Your task to perform on an android device: check google app version Image 0: 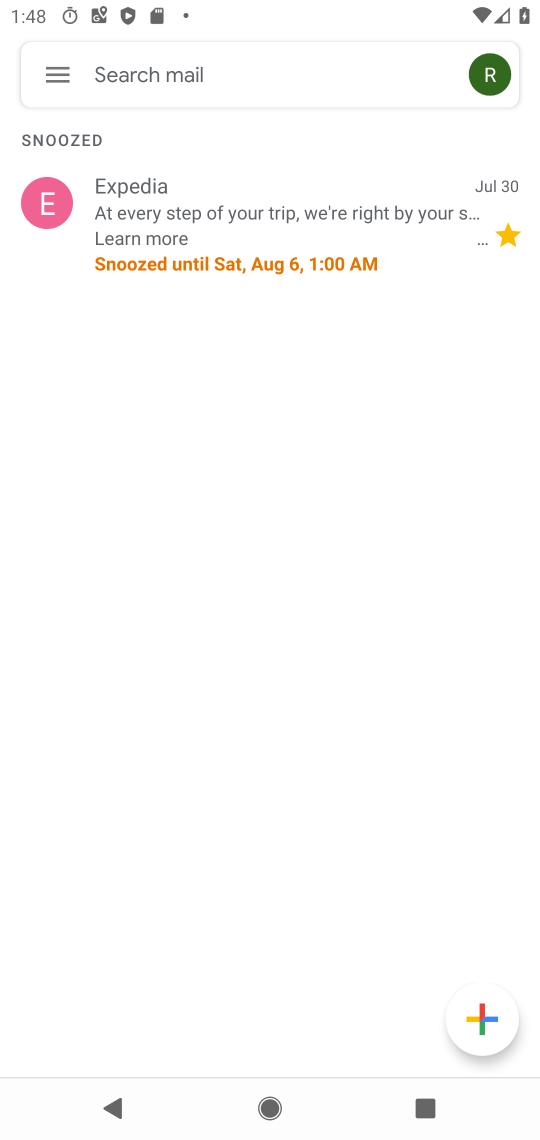
Step 0: press home button
Your task to perform on an android device: check google app version Image 1: 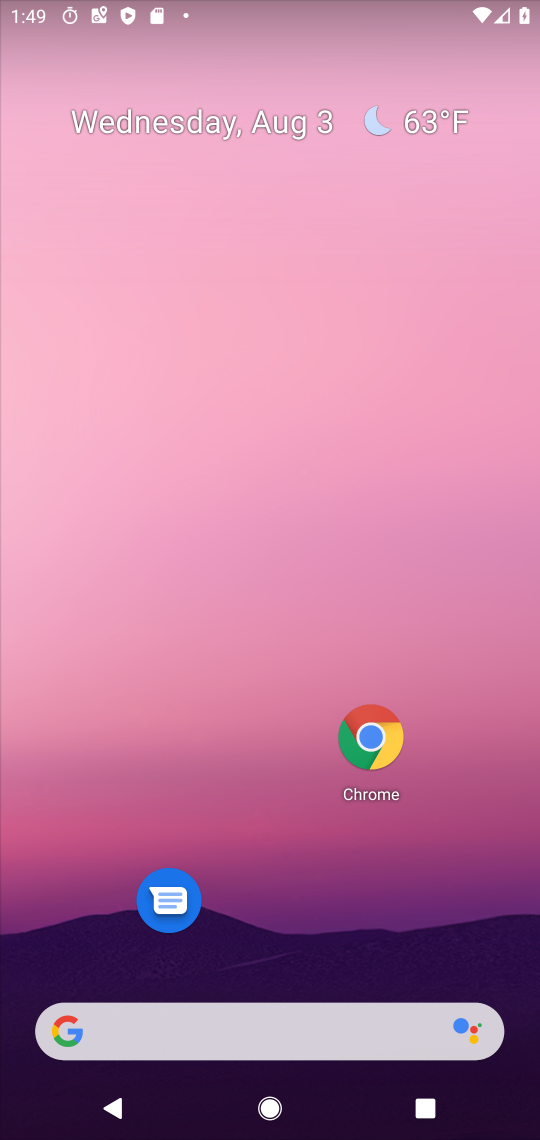
Step 1: drag from (351, 941) to (318, 91)
Your task to perform on an android device: check google app version Image 2: 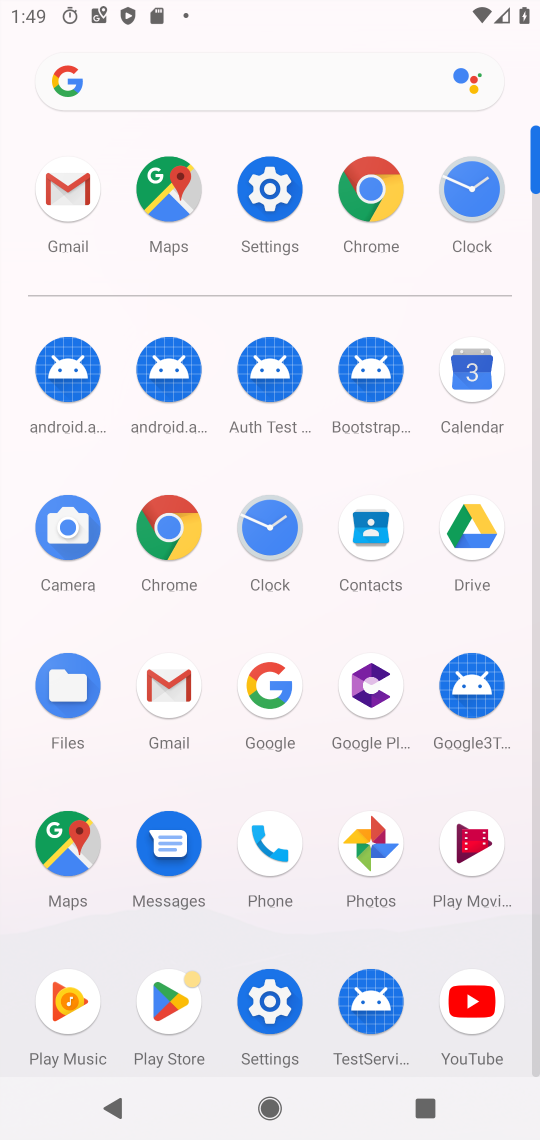
Step 2: click (269, 181)
Your task to perform on an android device: check google app version Image 3: 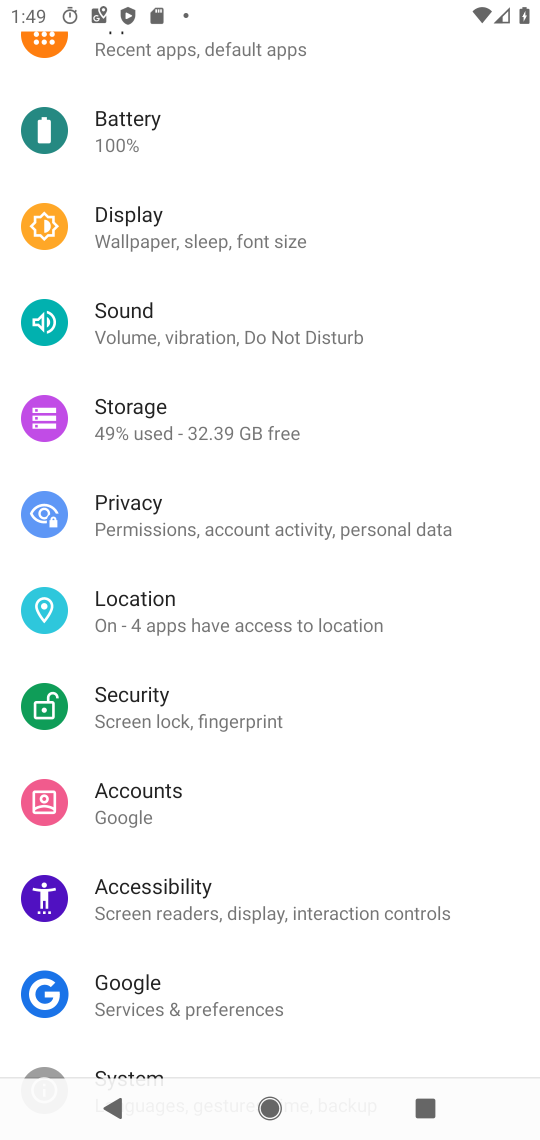
Step 3: drag from (439, 1035) to (472, 200)
Your task to perform on an android device: check google app version Image 4: 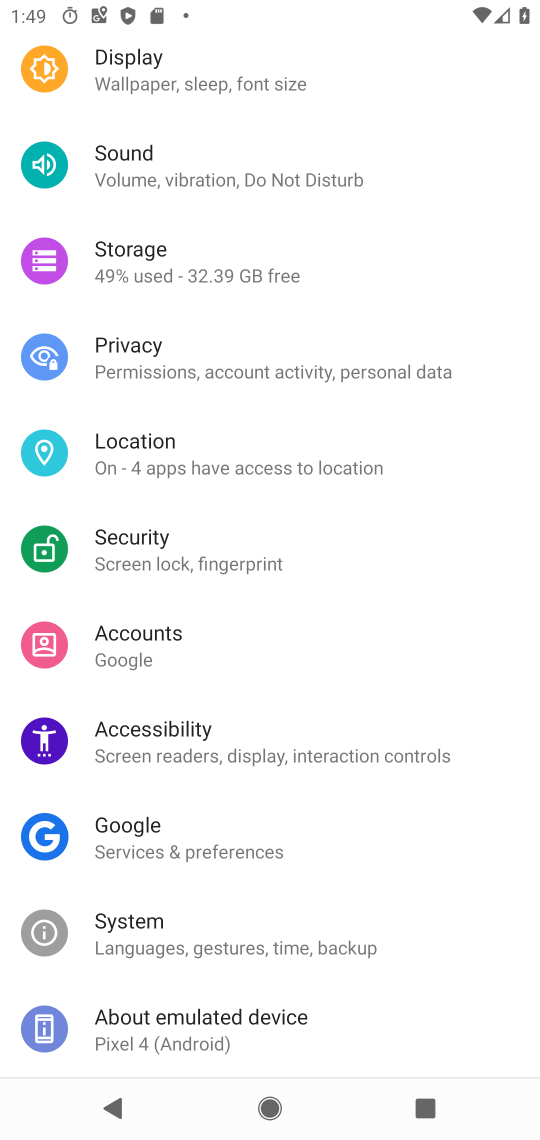
Step 4: click (193, 1018)
Your task to perform on an android device: check google app version Image 5: 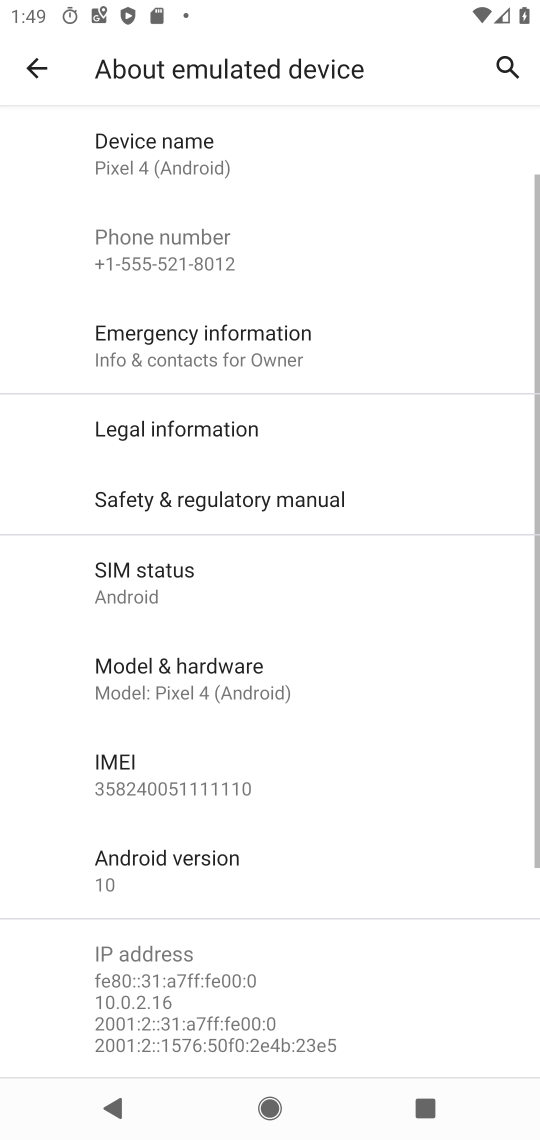
Step 5: press home button
Your task to perform on an android device: check google app version Image 6: 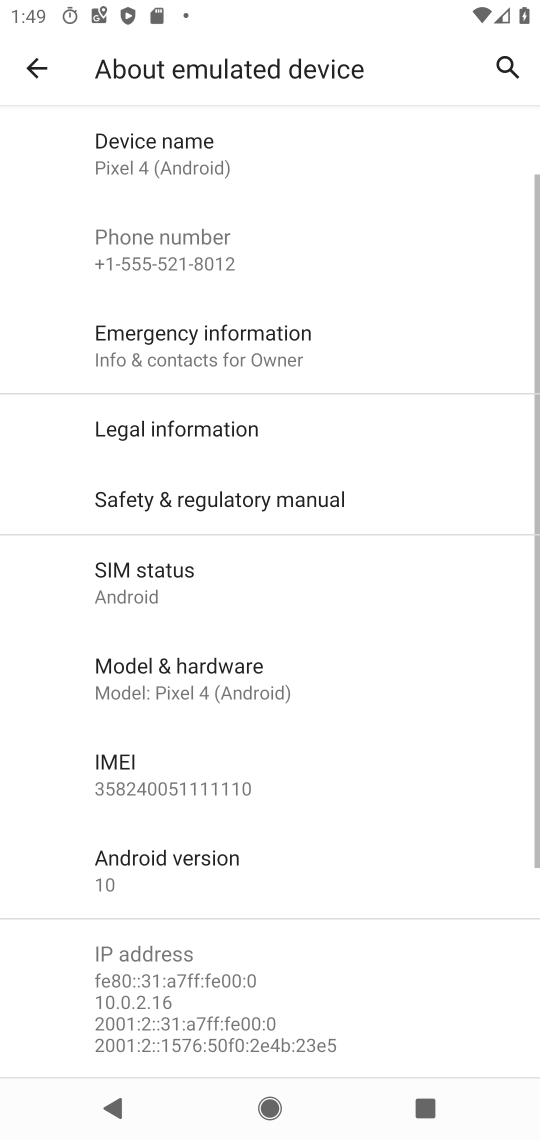
Step 6: press home button
Your task to perform on an android device: check google app version Image 7: 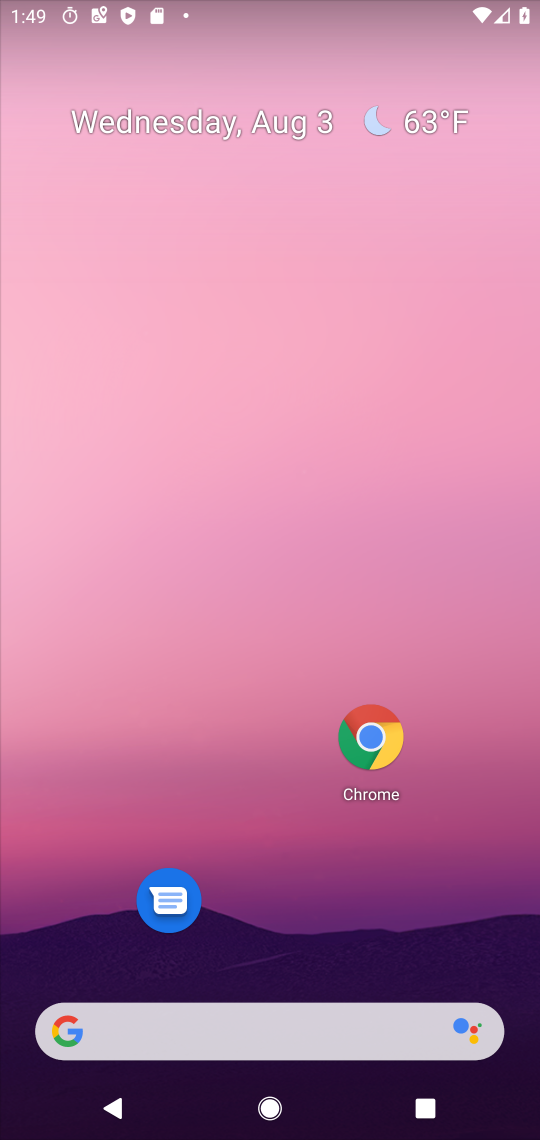
Step 7: drag from (311, 944) to (380, 137)
Your task to perform on an android device: check google app version Image 8: 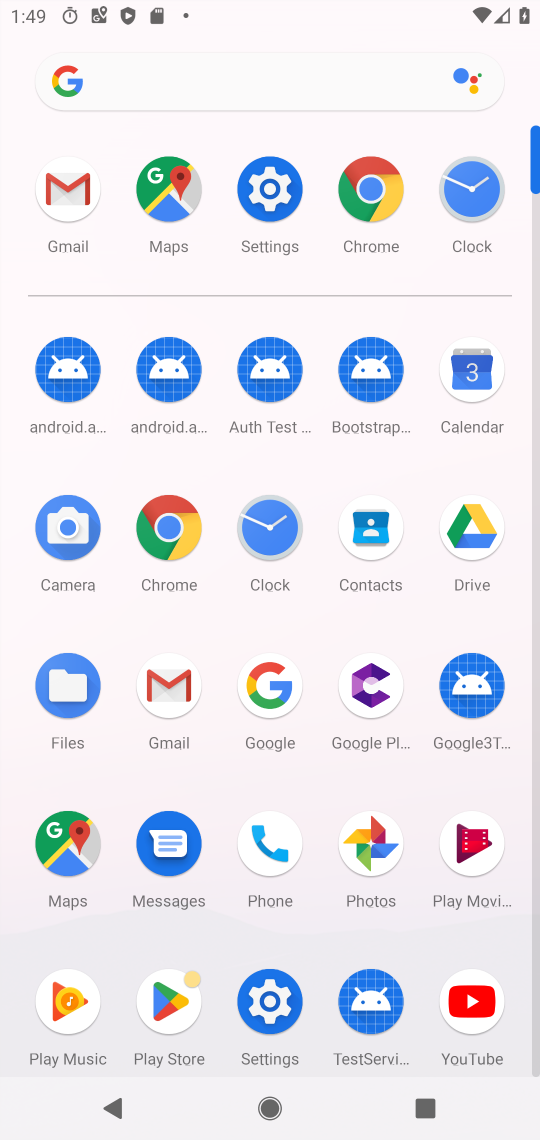
Step 8: click (264, 696)
Your task to perform on an android device: check google app version Image 9: 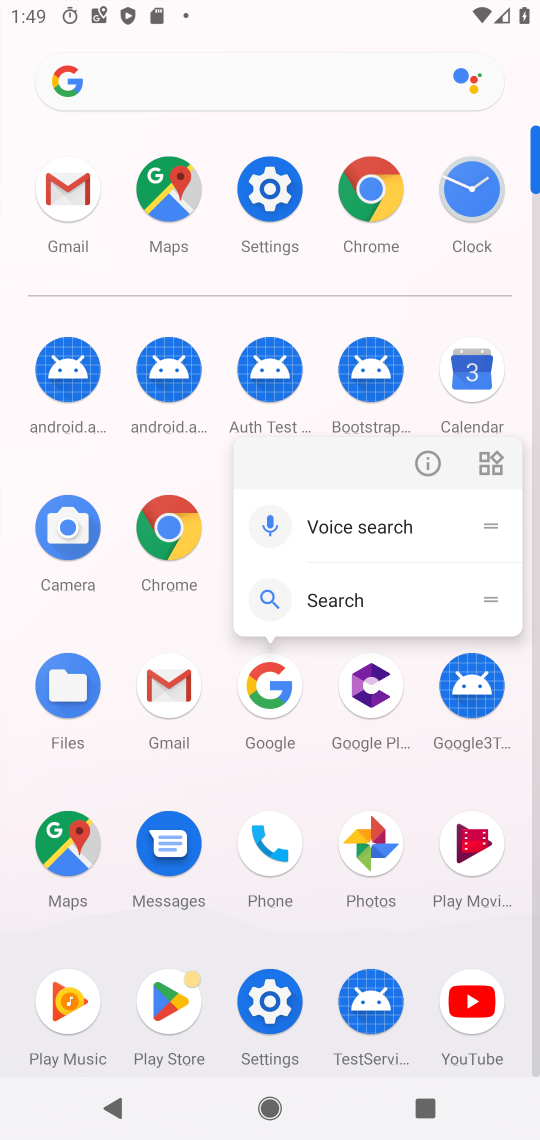
Step 9: click (432, 466)
Your task to perform on an android device: check google app version Image 10: 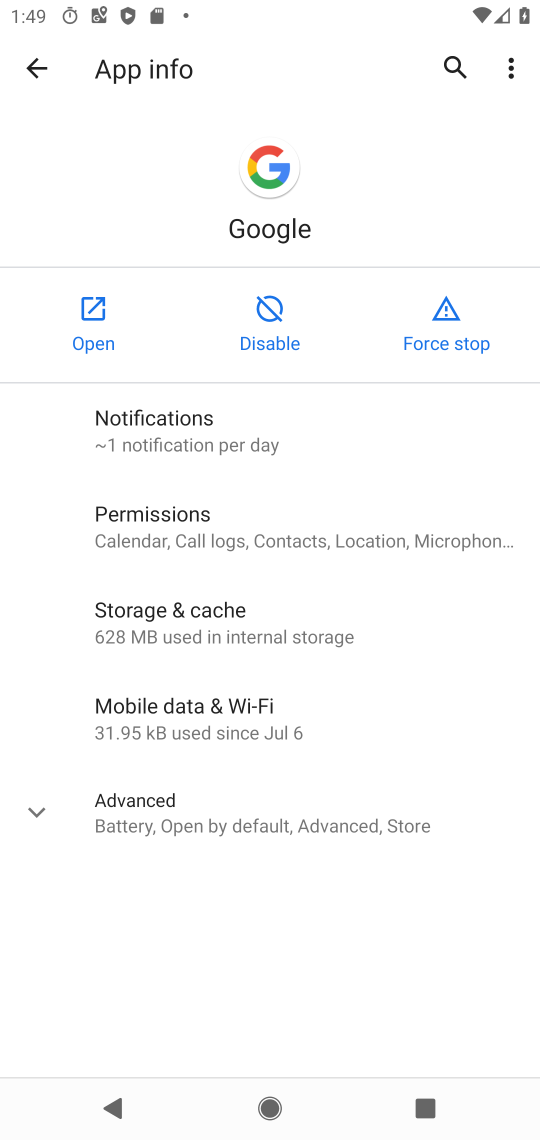
Step 10: click (148, 832)
Your task to perform on an android device: check google app version Image 11: 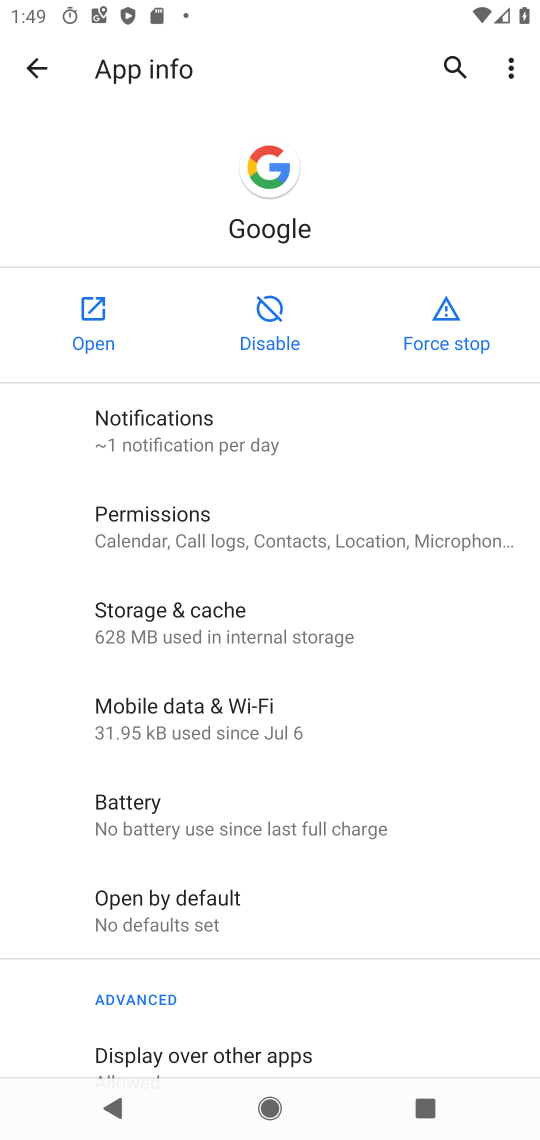
Step 11: drag from (474, 1029) to (492, 334)
Your task to perform on an android device: check google app version Image 12: 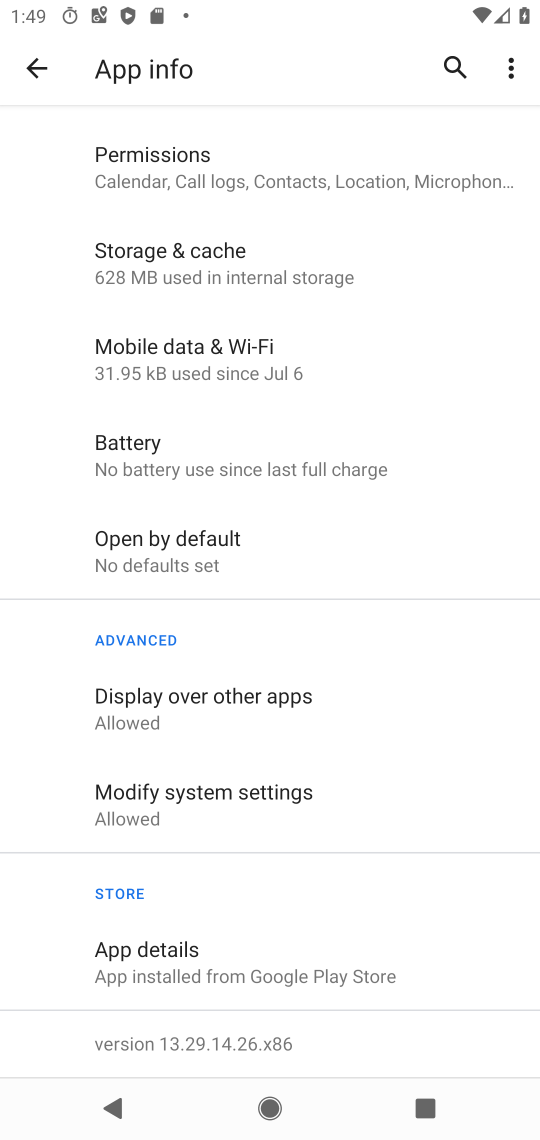
Step 12: drag from (432, 833) to (489, 451)
Your task to perform on an android device: check google app version Image 13: 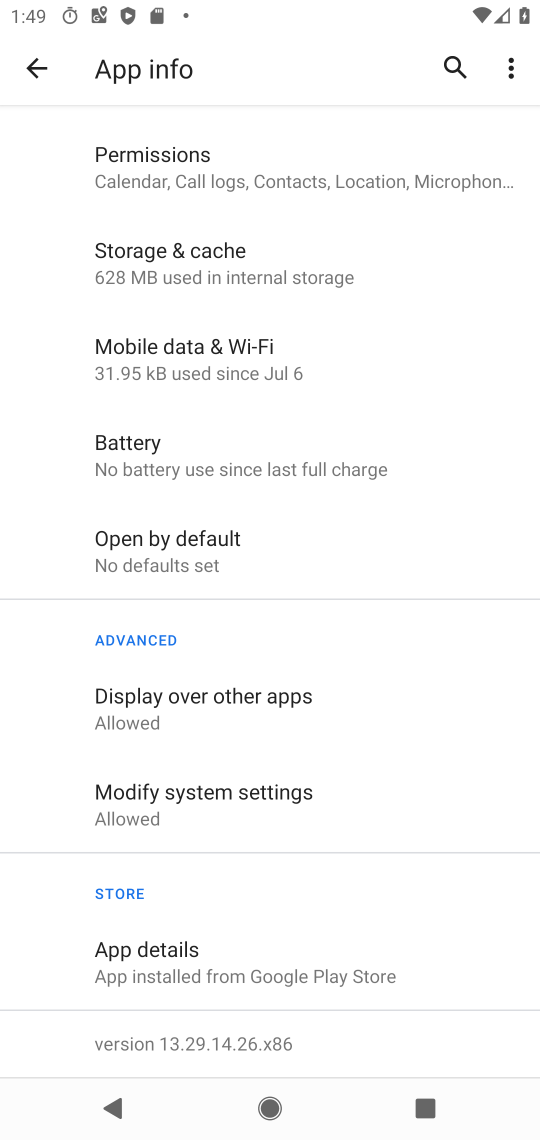
Step 13: click (291, 1046)
Your task to perform on an android device: check google app version Image 14: 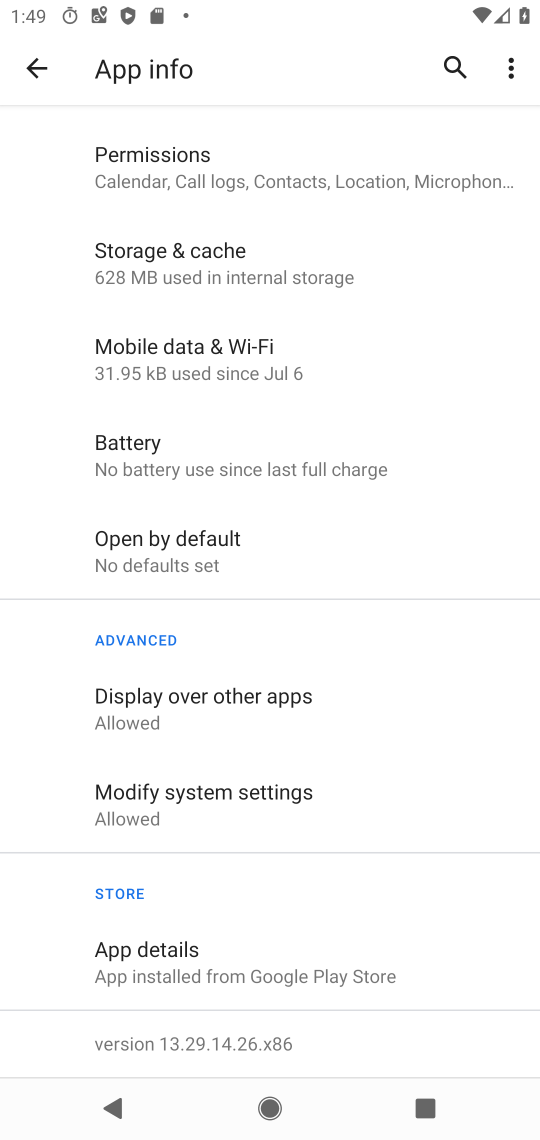
Step 14: task complete